Your task to perform on an android device: Open Youtube and go to the subscriptions tab Image 0: 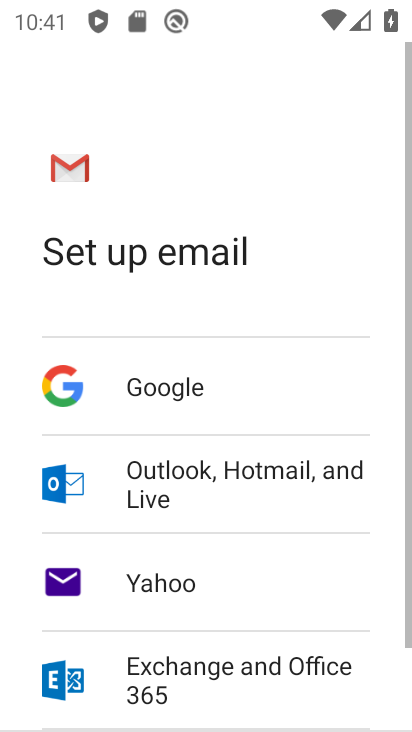
Step 0: press back button
Your task to perform on an android device: Open Youtube and go to the subscriptions tab Image 1: 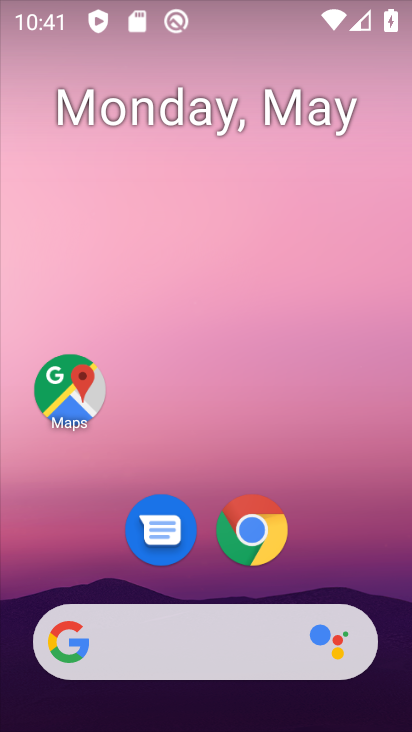
Step 1: drag from (339, 564) to (270, 59)
Your task to perform on an android device: Open Youtube and go to the subscriptions tab Image 2: 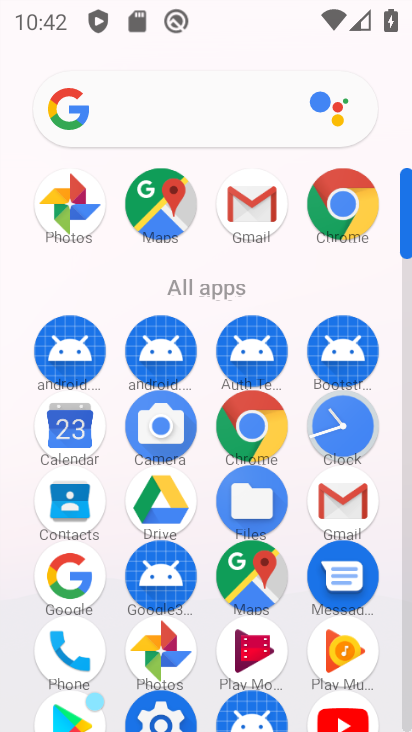
Step 2: drag from (288, 541) to (286, 271)
Your task to perform on an android device: Open Youtube and go to the subscriptions tab Image 3: 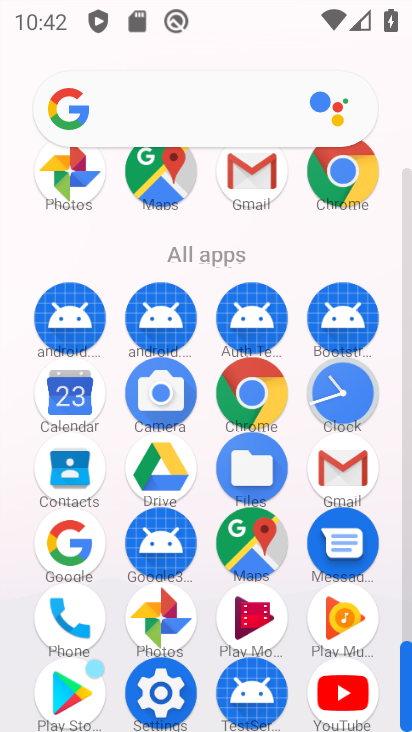
Step 3: click (342, 694)
Your task to perform on an android device: Open Youtube and go to the subscriptions tab Image 4: 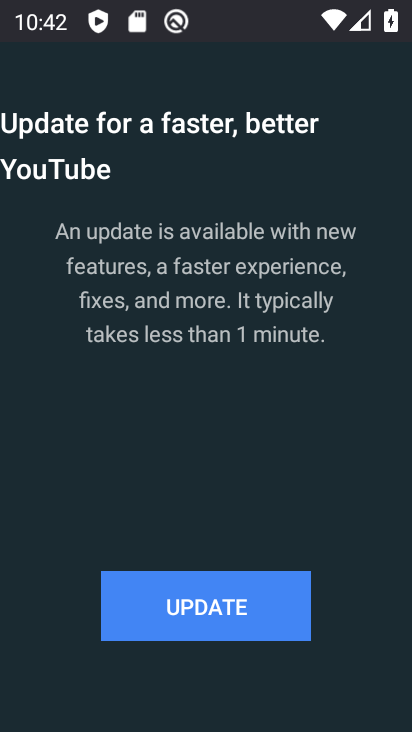
Step 4: click (226, 606)
Your task to perform on an android device: Open Youtube and go to the subscriptions tab Image 5: 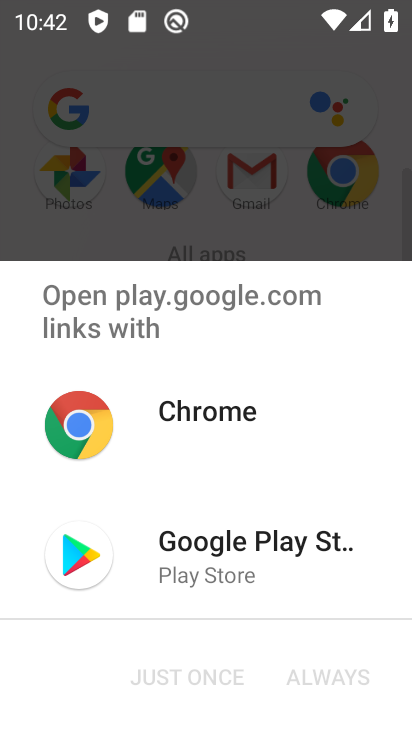
Step 5: click (230, 550)
Your task to perform on an android device: Open Youtube and go to the subscriptions tab Image 6: 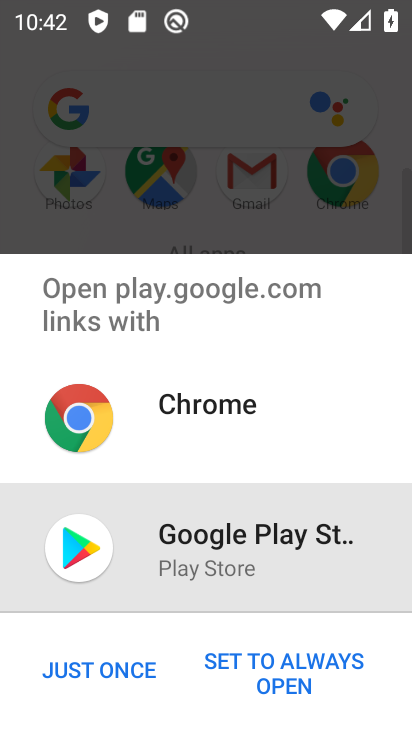
Step 6: click (115, 668)
Your task to perform on an android device: Open Youtube and go to the subscriptions tab Image 7: 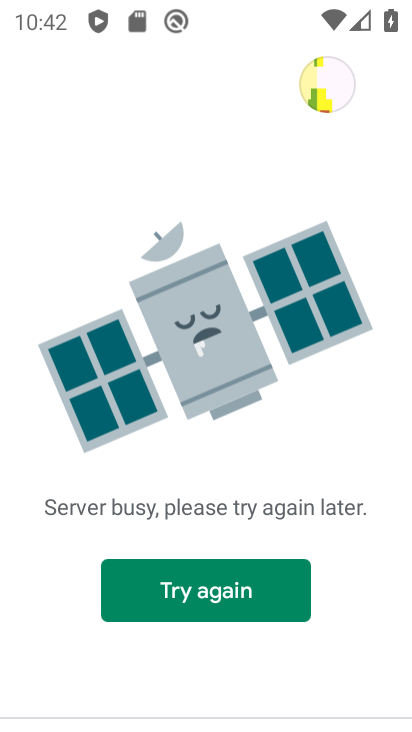
Step 7: click (177, 591)
Your task to perform on an android device: Open Youtube and go to the subscriptions tab Image 8: 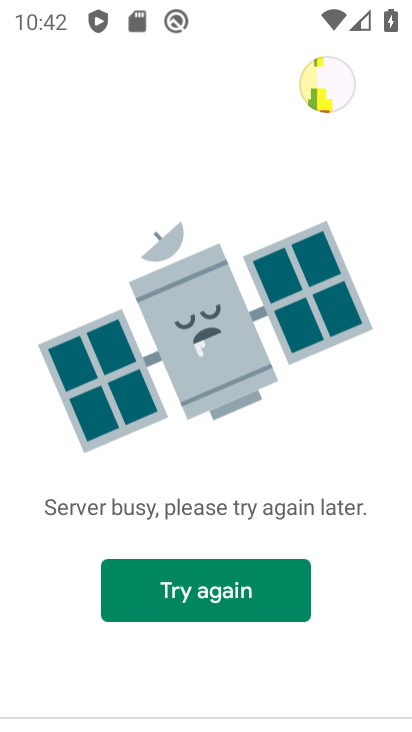
Step 8: click (177, 591)
Your task to perform on an android device: Open Youtube and go to the subscriptions tab Image 9: 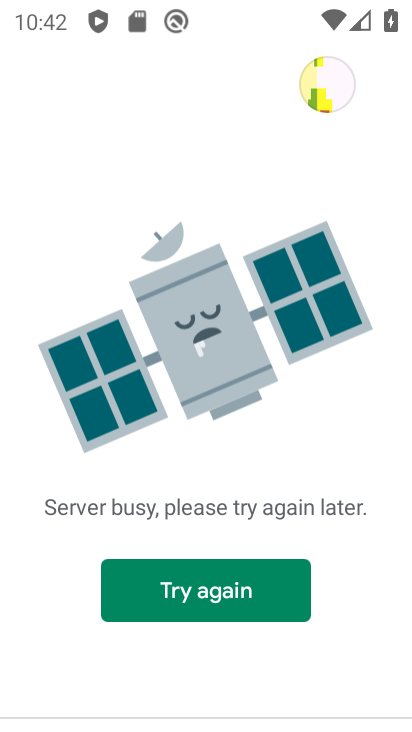
Step 9: task complete